Your task to perform on an android device: change your default location settings in chrome Image 0: 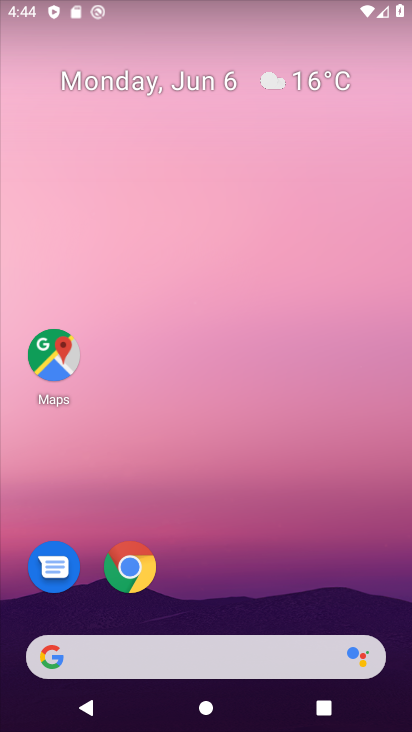
Step 0: click (202, 121)
Your task to perform on an android device: change your default location settings in chrome Image 1: 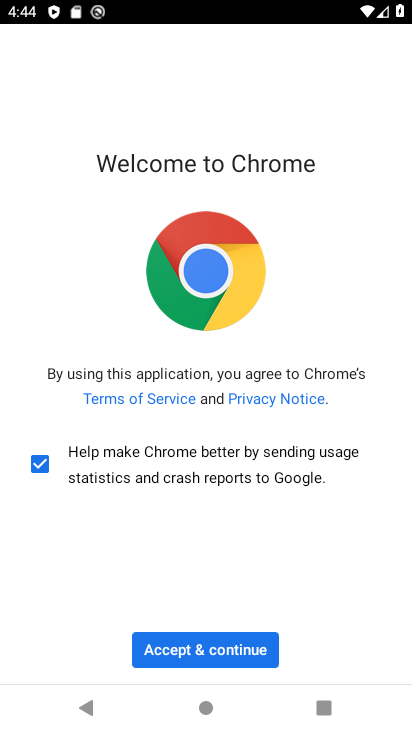
Step 1: click (192, 646)
Your task to perform on an android device: change your default location settings in chrome Image 2: 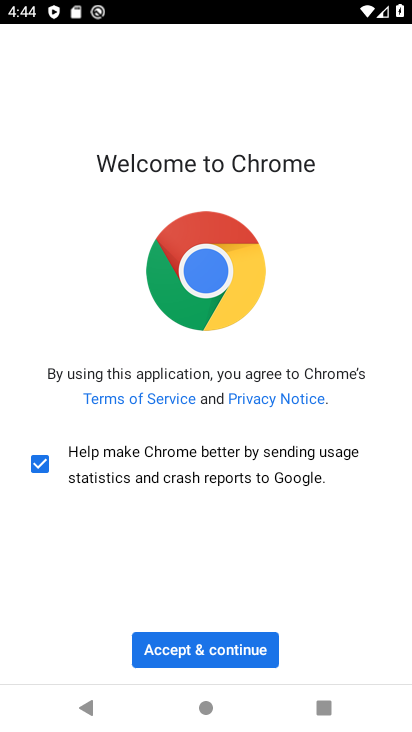
Step 2: click (192, 646)
Your task to perform on an android device: change your default location settings in chrome Image 3: 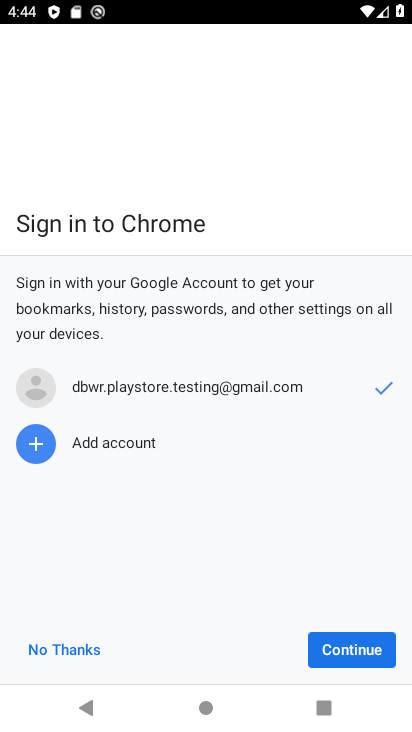
Step 3: click (190, 646)
Your task to perform on an android device: change your default location settings in chrome Image 4: 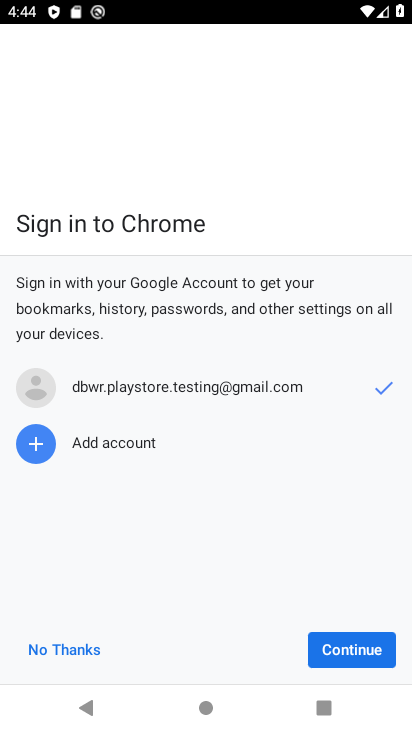
Step 4: click (196, 642)
Your task to perform on an android device: change your default location settings in chrome Image 5: 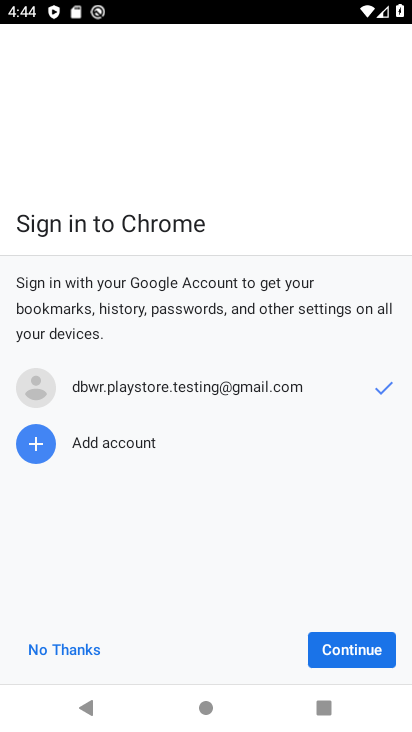
Step 5: click (329, 645)
Your task to perform on an android device: change your default location settings in chrome Image 6: 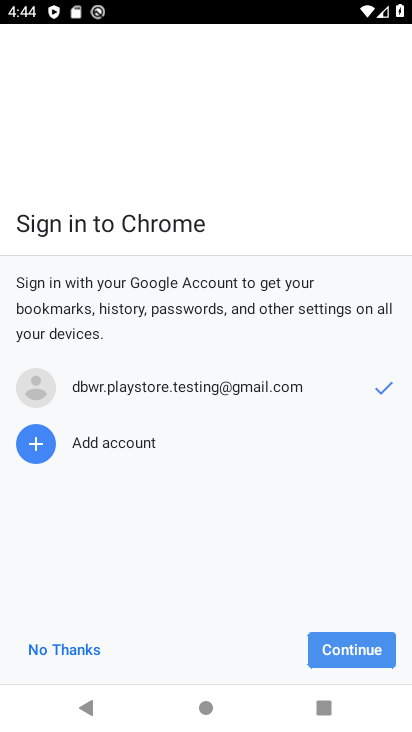
Step 6: click (329, 645)
Your task to perform on an android device: change your default location settings in chrome Image 7: 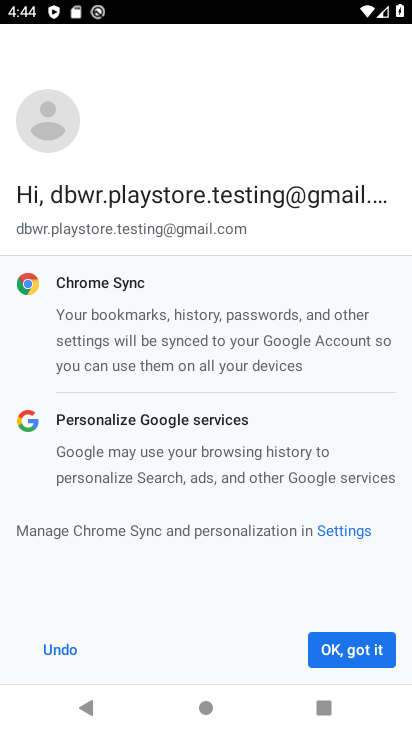
Step 7: click (329, 645)
Your task to perform on an android device: change your default location settings in chrome Image 8: 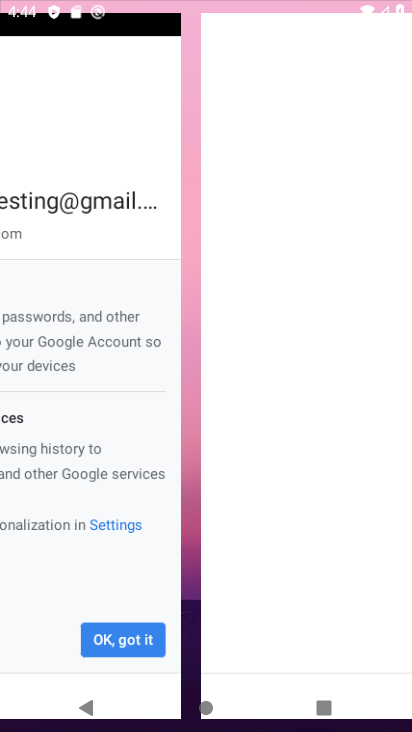
Step 8: click (365, 653)
Your task to perform on an android device: change your default location settings in chrome Image 9: 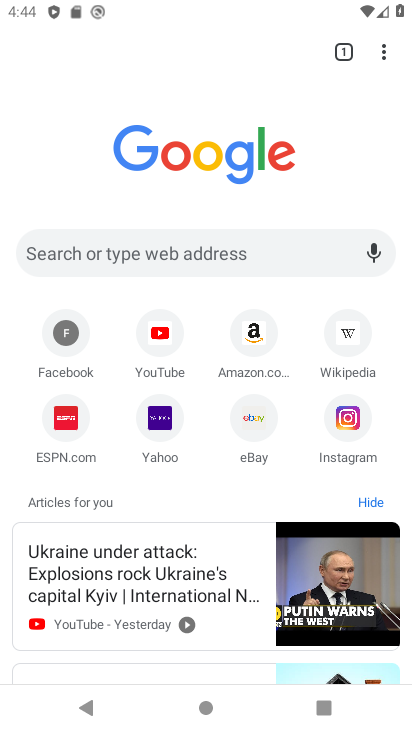
Step 9: press back button
Your task to perform on an android device: change your default location settings in chrome Image 10: 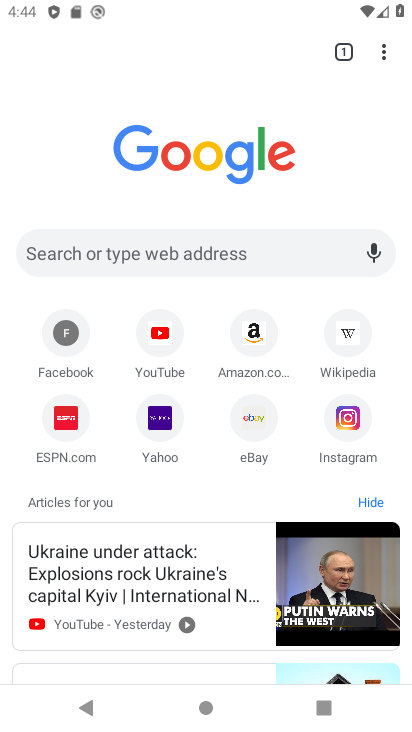
Step 10: press back button
Your task to perform on an android device: change your default location settings in chrome Image 11: 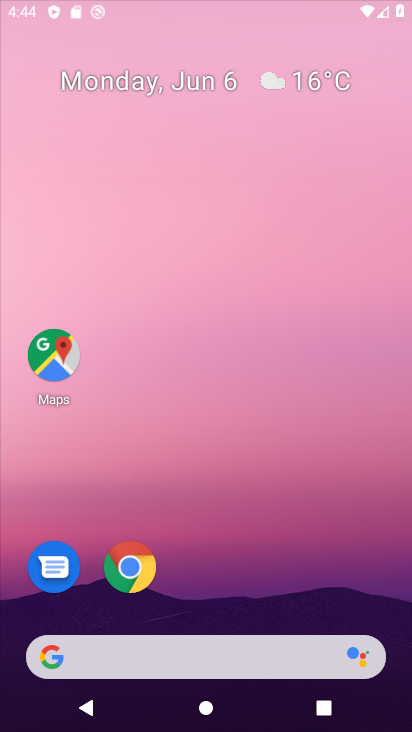
Step 11: press back button
Your task to perform on an android device: change your default location settings in chrome Image 12: 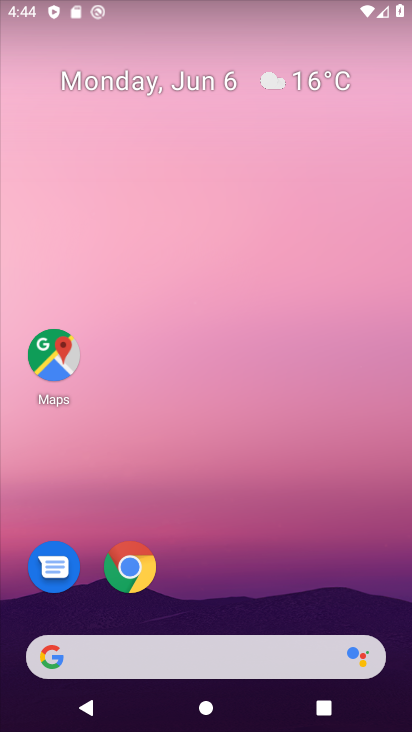
Step 12: press home button
Your task to perform on an android device: change your default location settings in chrome Image 13: 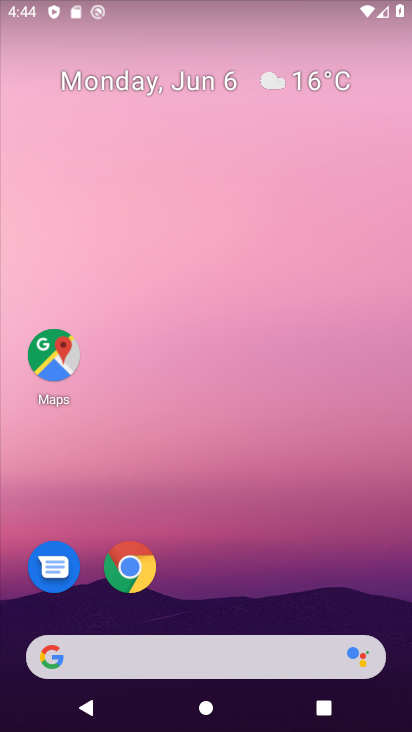
Step 13: press home button
Your task to perform on an android device: change your default location settings in chrome Image 14: 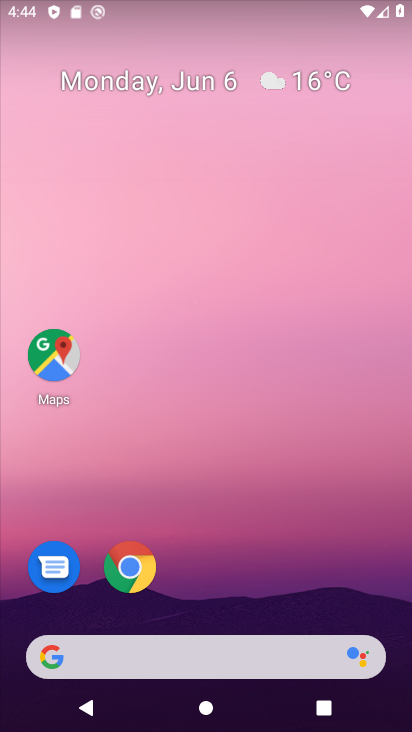
Step 14: drag from (124, 440) to (44, 29)
Your task to perform on an android device: change your default location settings in chrome Image 15: 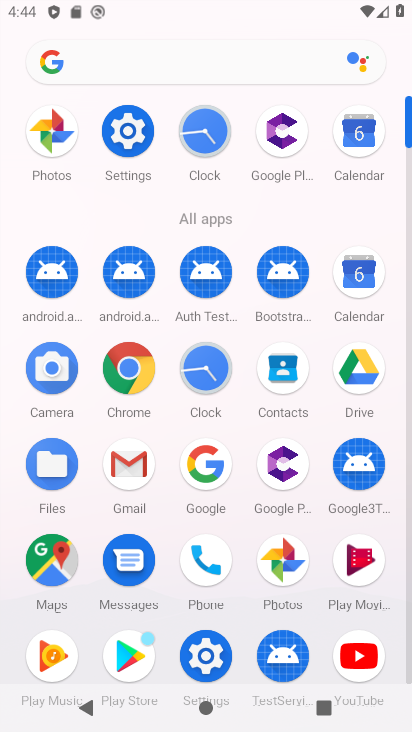
Step 15: drag from (252, 673) to (143, 3)
Your task to perform on an android device: change your default location settings in chrome Image 16: 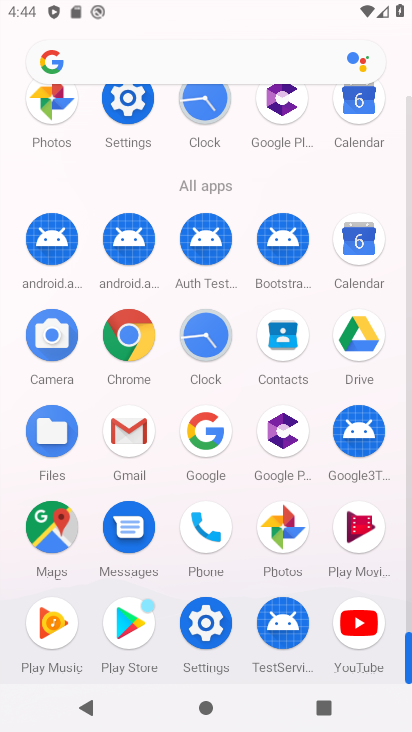
Step 16: click (125, 321)
Your task to perform on an android device: change your default location settings in chrome Image 17: 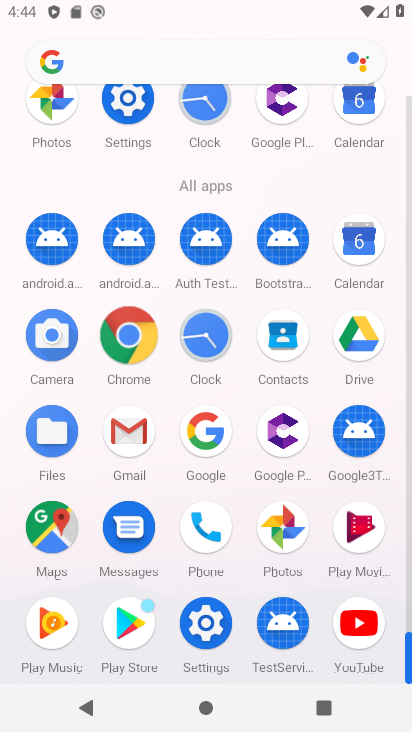
Step 17: click (125, 321)
Your task to perform on an android device: change your default location settings in chrome Image 18: 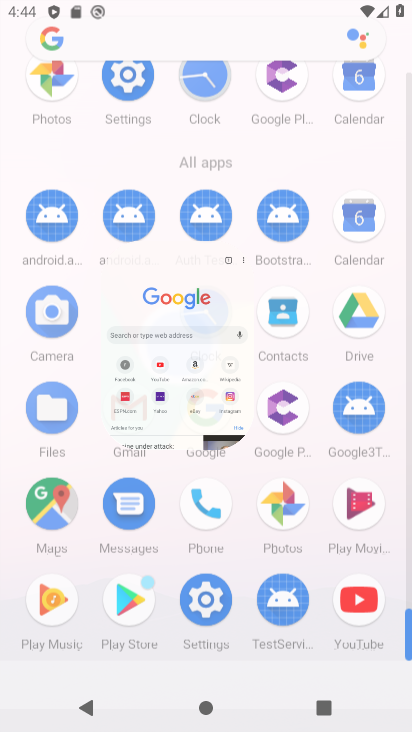
Step 18: click (125, 321)
Your task to perform on an android device: change your default location settings in chrome Image 19: 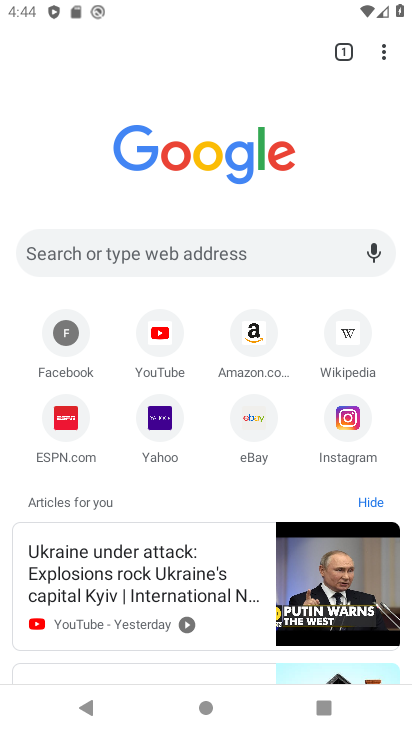
Step 19: press home button
Your task to perform on an android device: change your default location settings in chrome Image 20: 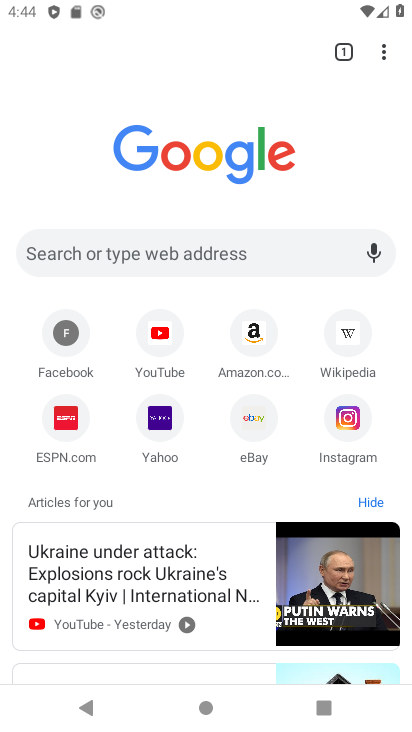
Step 20: press home button
Your task to perform on an android device: change your default location settings in chrome Image 21: 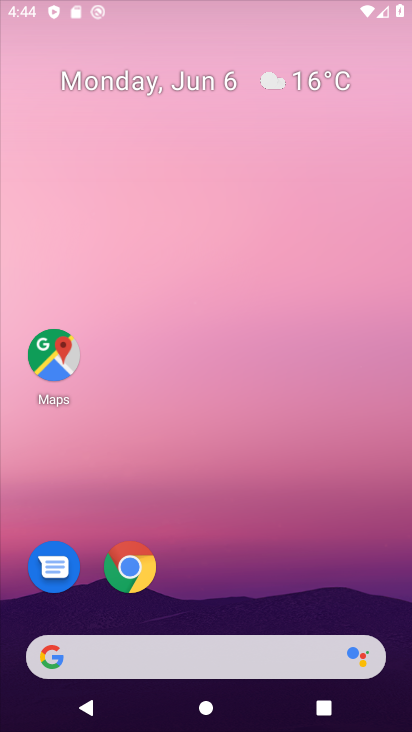
Step 21: press home button
Your task to perform on an android device: change your default location settings in chrome Image 22: 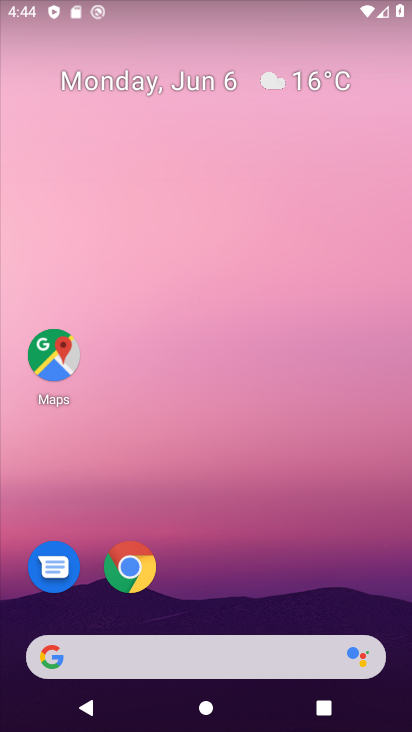
Step 22: drag from (252, 676) to (136, 63)
Your task to perform on an android device: change your default location settings in chrome Image 23: 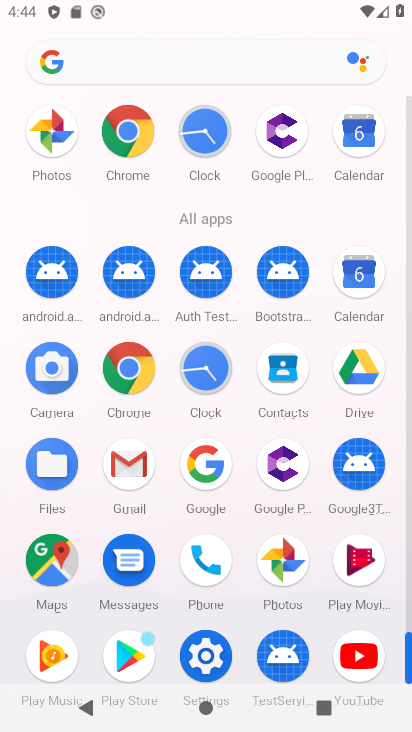
Step 23: click (109, 357)
Your task to perform on an android device: change your default location settings in chrome Image 24: 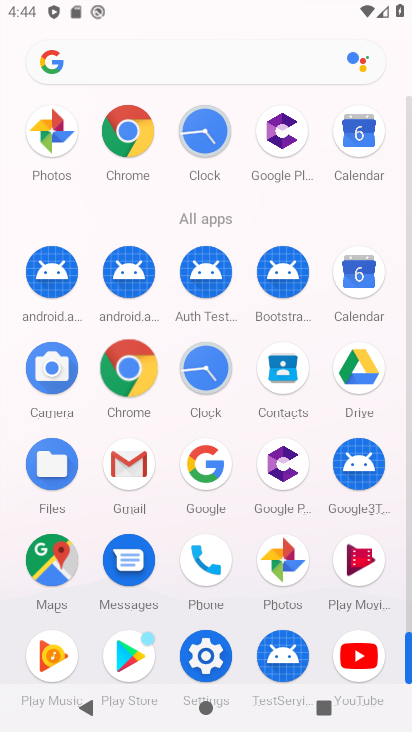
Step 24: click (109, 357)
Your task to perform on an android device: change your default location settings in chrome Image 25: 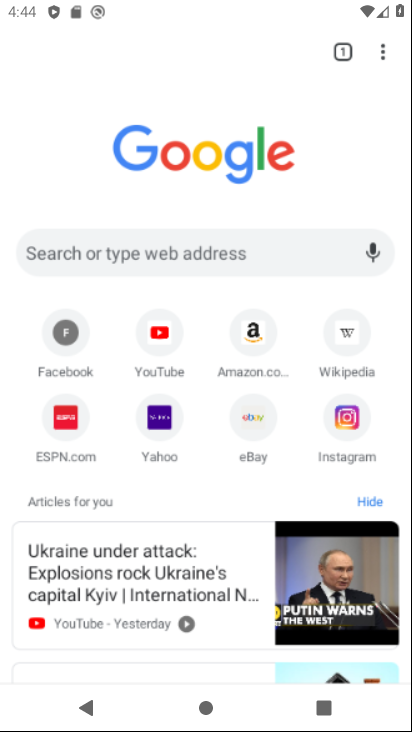
Step 25: click (115, 355)
Your task to perform on an android device: change your default location settings in chrome Image 26: 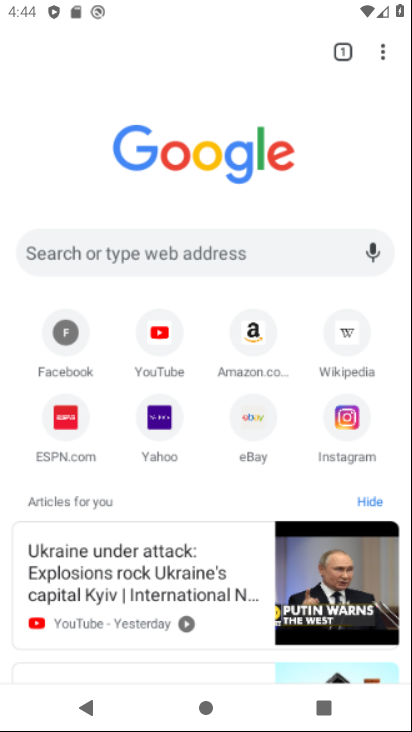
Step 26: click (121, 357)
Your task to perform on an android device: change your default location settings in chrome Image 27: 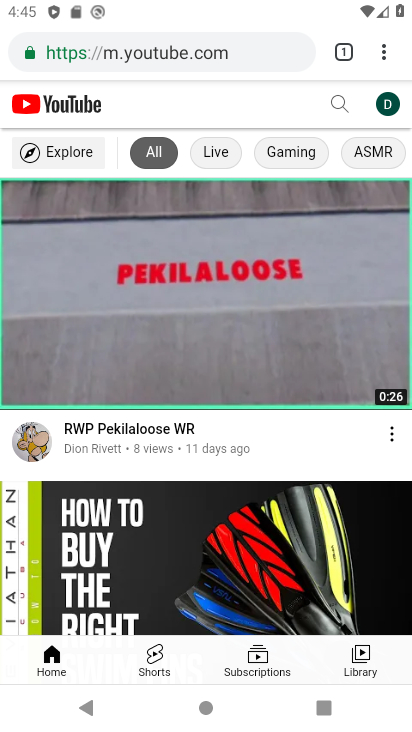
Step 27: press back button
Your task to perform on an android device: change your default location settings in chrome Image 28: 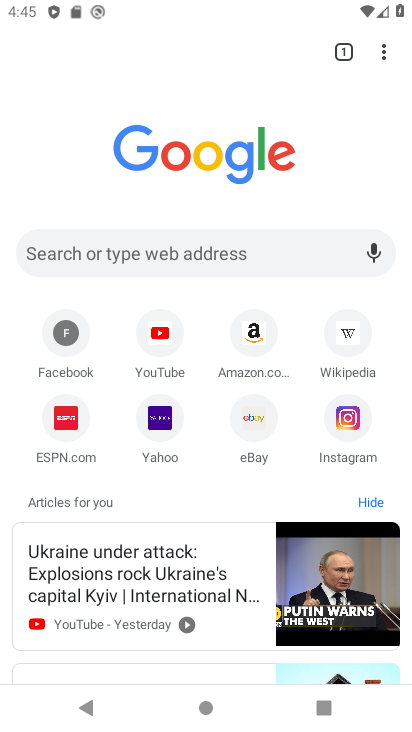
Step 28: drag from (387, 58) to (197, 427)
Your task to perform on an android device: change your default location settings in chrome Image 29: 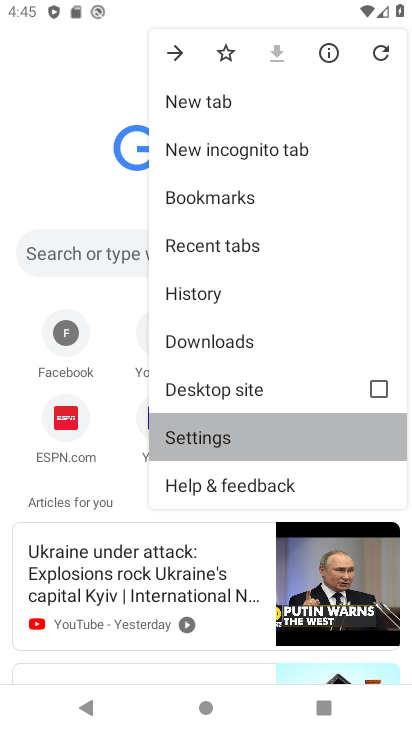
Step 29: click (197, 427)
Your task to perform on an android device: change your default location settings in chrome Image 30: 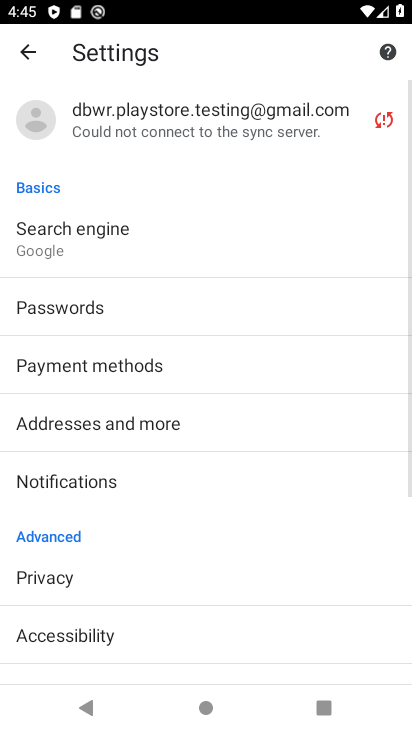
Step 30: drag from (179, 523) to (112, 136)
Your task to perform on an android device: change your default location settings in chrome Image 31: 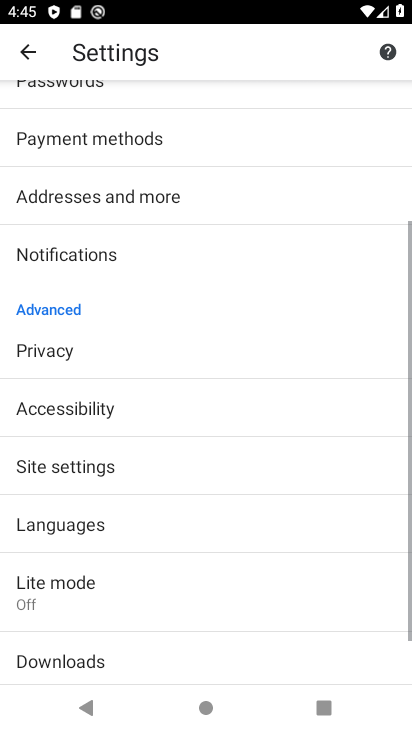
Step 31: drag from (158, 457) to (104, 78)
Your task to perform on an android device: change your default location settings in chrome Image 32: 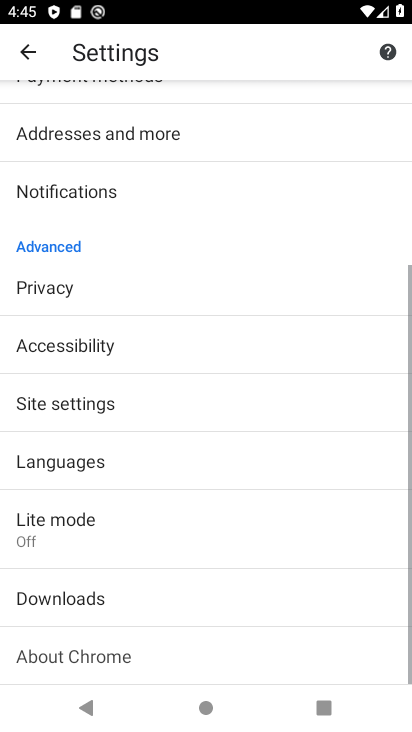
Step 32: drag from (144, 441) to (138, 158)
Your task to perform on an android device: change your default location settings in chrome Image 33: 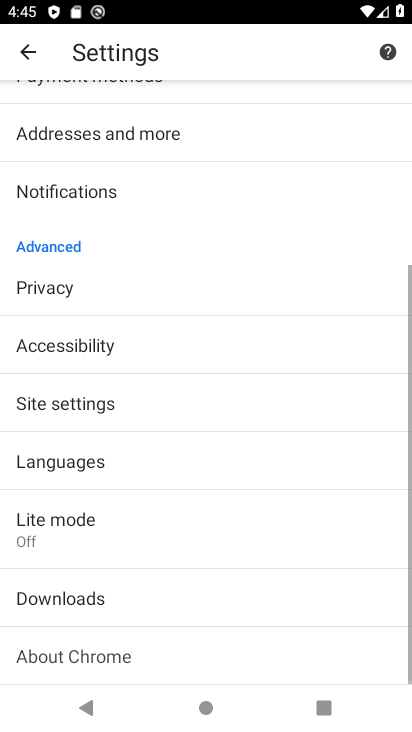
Step 33: drag from (157, 375) to (124, 114)
Your task to perform on an android device: change your default location settings in chrome Image 34: 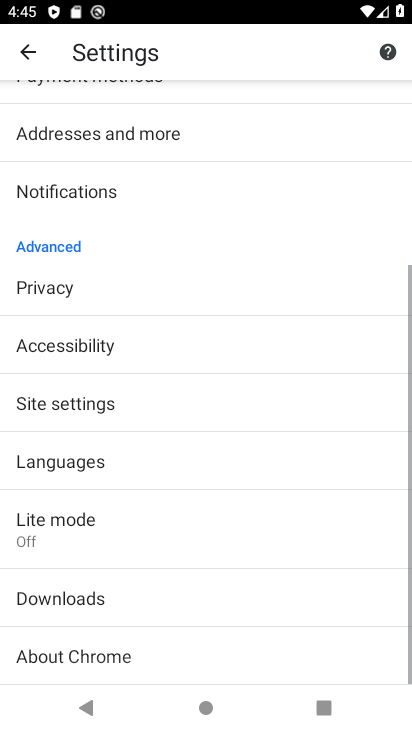
Step 34: drag from (133, 493) to (131, 95)
Your task to perform on an android device: change your default location settings in chrome Image 35: 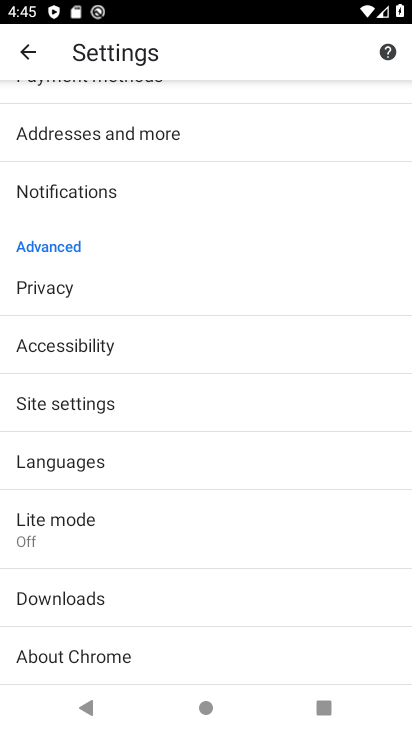
Step 35: click (50, 466)
Your task to perform on an android device: change your default location settings in chrome Image 36: 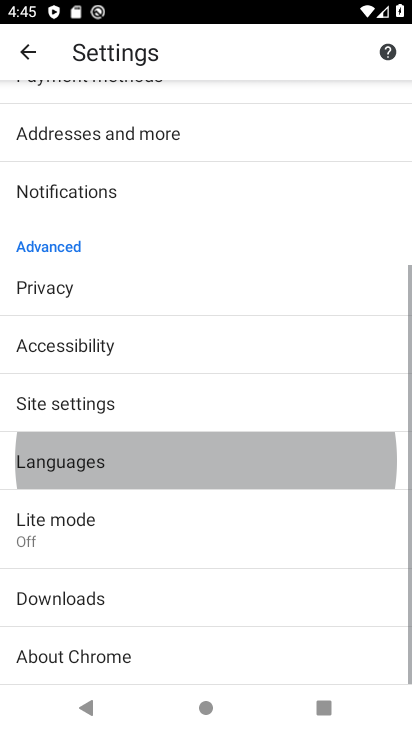
Step 36: click (50, 466)
Your task to perform on an android device: change your default location settings in chrome Image 37: 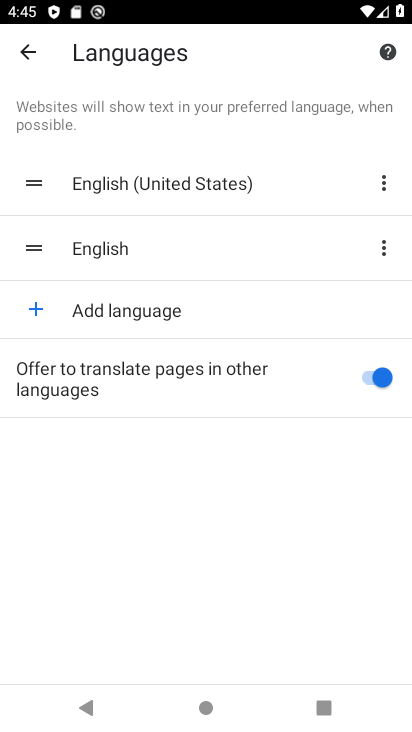
Step 37: click (373, 379)
Your task to perform on an android device: change your default location settings in chrome Image 38: 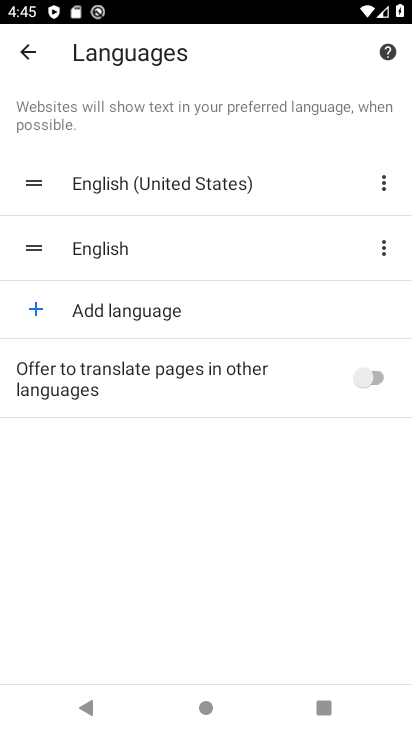
Step 38: click (373, 379)
Your task to perform on an android device: change your default location settings in chrome Image 39: 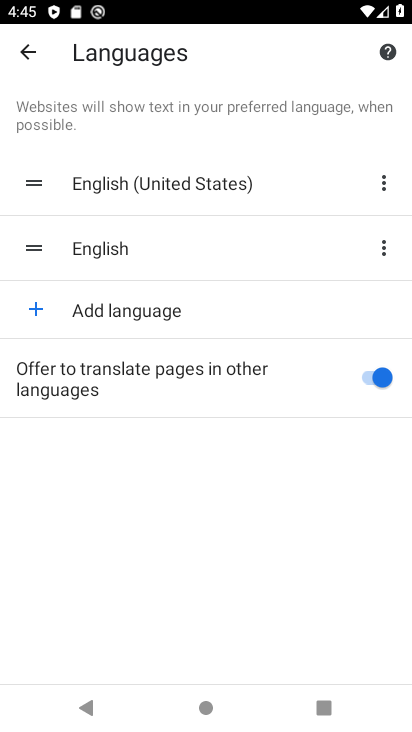
Step 39: click (30, 52)
Your task to perform on an android device: change your default location settings in chrome Image 40: 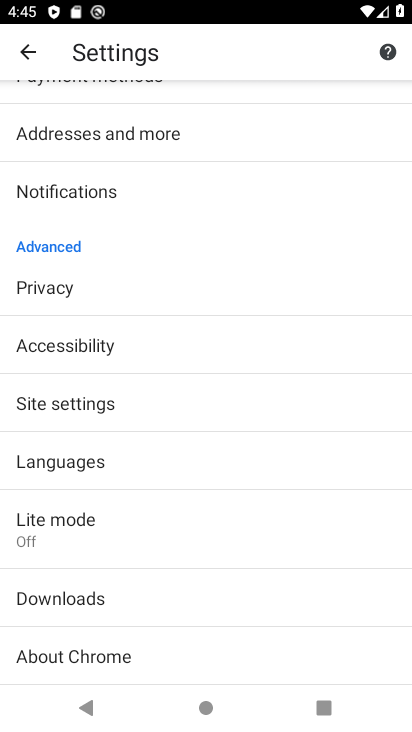
Step 40: click (69, 235)
Your task to perform on an android device: change your default location settings in chrome Image 41: 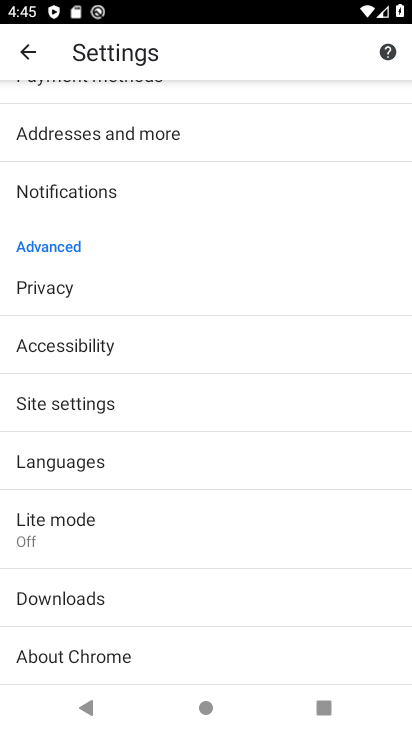
Step 41: click (49, 402)
Your task to perform on an android device: change your default location settings in chrome Image 42: 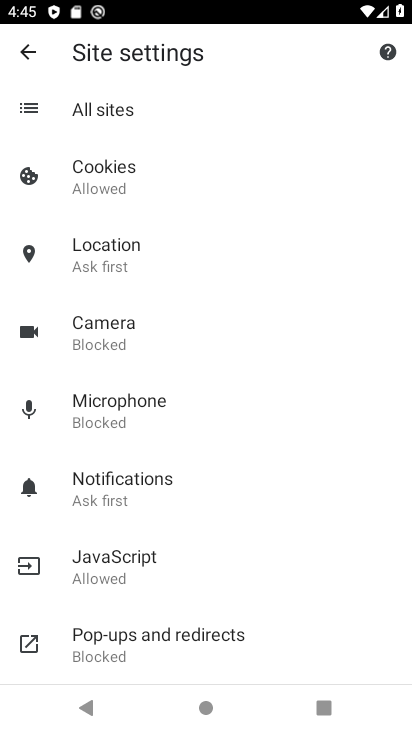
Step 42: click (91, 247)
Your task to perform on an android device: change your default location settings in chrome Image 43: 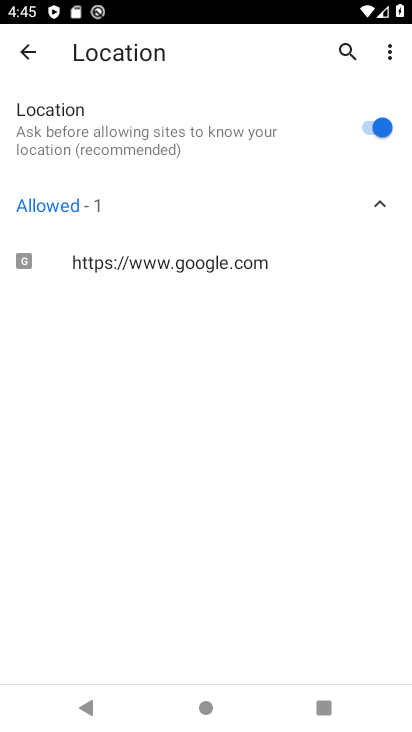
Step 43: click (377, 115)
Your task to perform on an android device: change your default location settings in chrome Image 44: 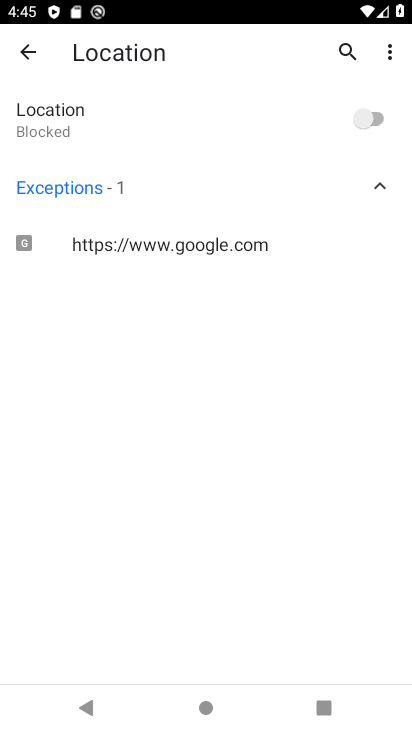
Step 44: task complete